Your task to perform on an android device: turn smart compose on in the gmail app Image 0: 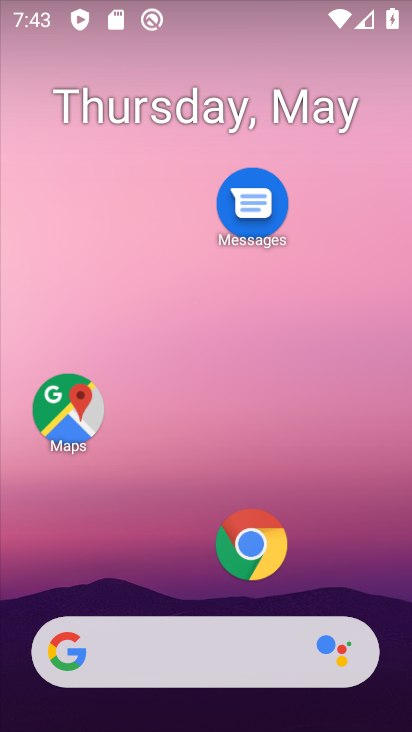
Step 0: drag from (160, 533) to (265, 151)
Your task to perform on an android device: turn smart compose on in the gmail app Image 1: 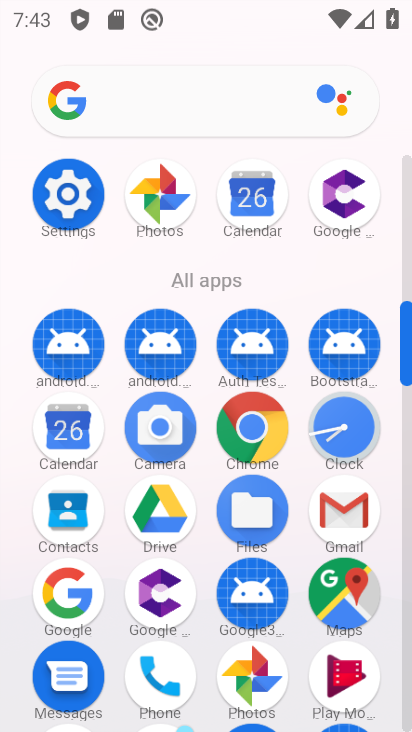
Step 1: click (349, 512)
Your task to perform on an android device: turn smart compose on in the gmail app Image 2: 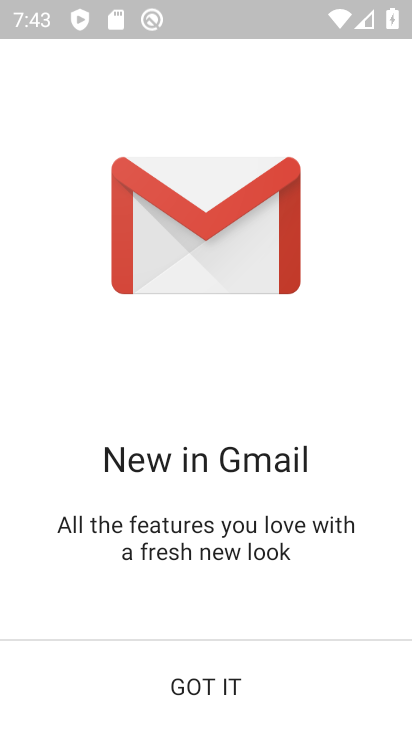
Step 2: click (224, 690)
Your task to perform on an android device: turn smart compose on in the gmail app Image 3: 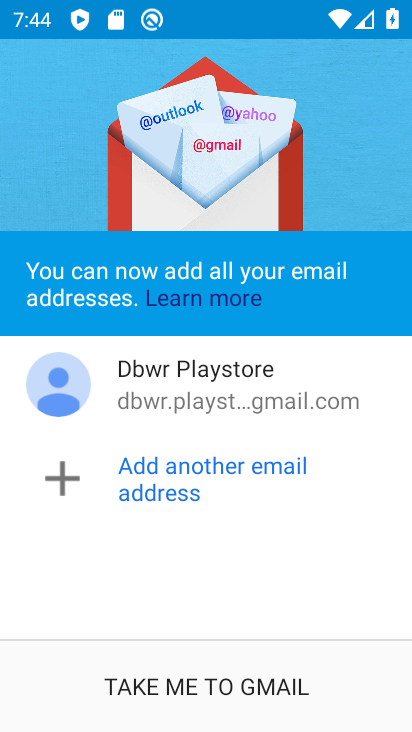
Step 3: click (223, 691)
Your task to perform on an android device: turn smart compose on in the gmail app Image 4: 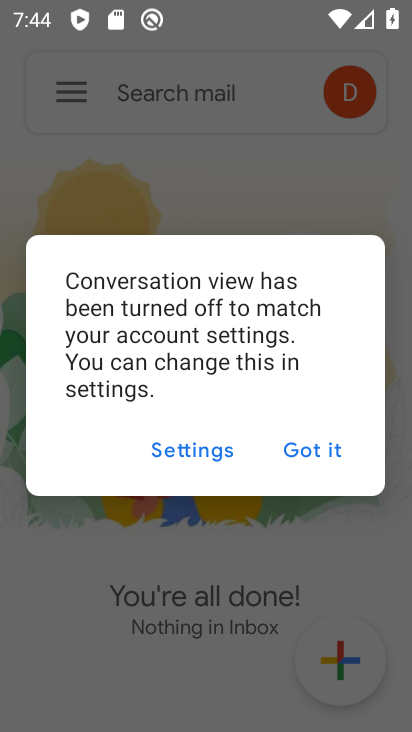
Step 4: click (309, 446)
Your task to perform on an android device: turn smart compose on in the gmail app Image 5: 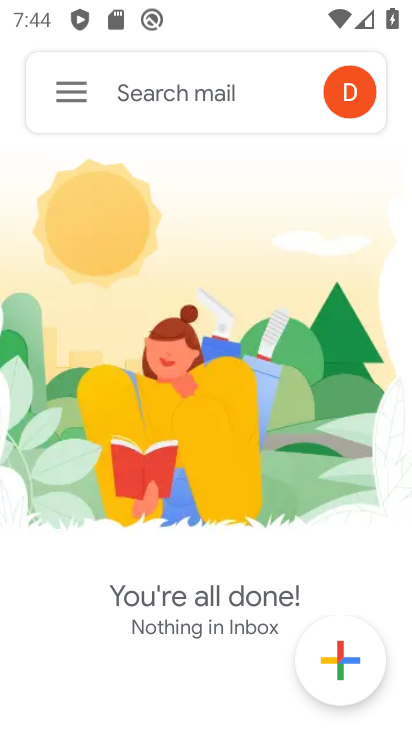
Step 5: click (66, 85)
Your task to perform on an android device: turn smart compose on in the gmail app Image 6: 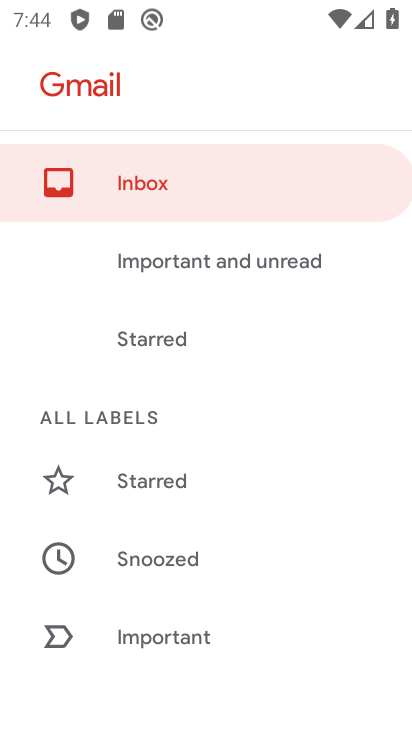
Step 6: drag from (162, 581) to (193, 247)
Your task to perform on an android device: turn smart compose on in the gmail app Image 7: 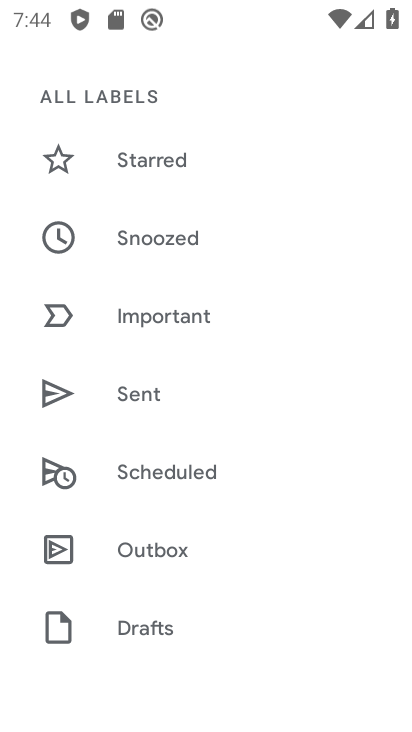
Step 7: drag from (153, 595) to (208, 345)
Your task to perform on an android device: turn smart compose on in the gmail app Image 8: 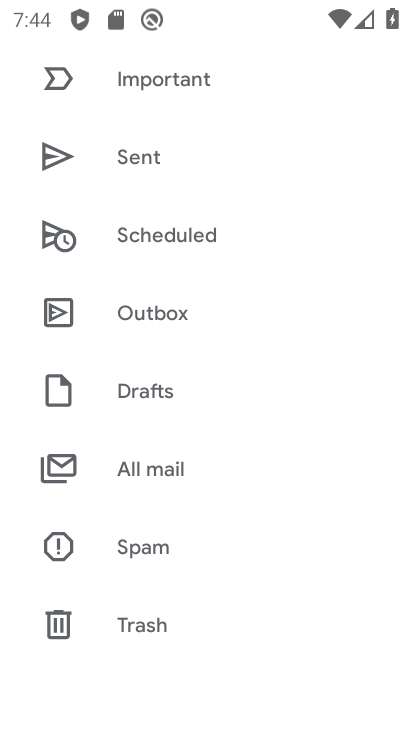
Step 8: drag from (138, 622) to (187, 217)
Your task to perform on an android device: turn smart compose on in the gmail app Image 9: 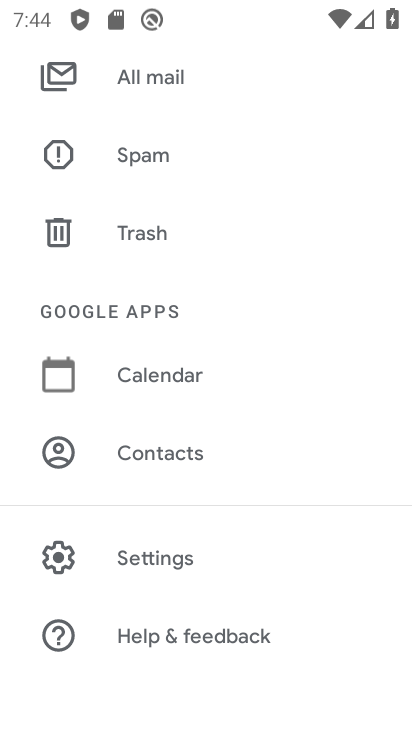
Step 9: drag from (208, 351) to (225, 167)
Your task to perform on an android device: turn smart compose on in the gmail app Image 10: 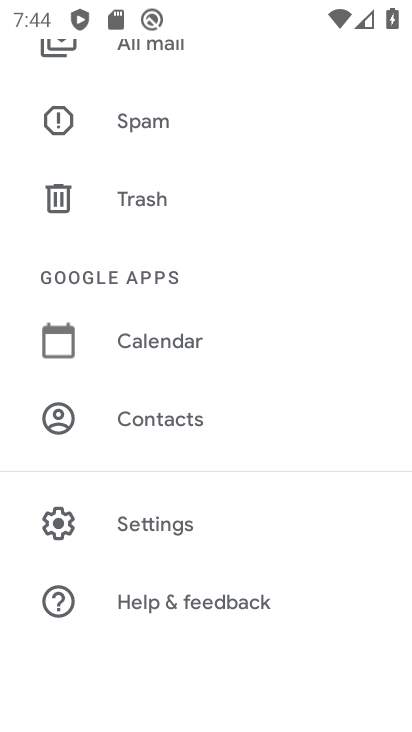
Step 10: click (153, 522)
Your task to perform on an android device: turn smart compose on in the gmail app Image 11: 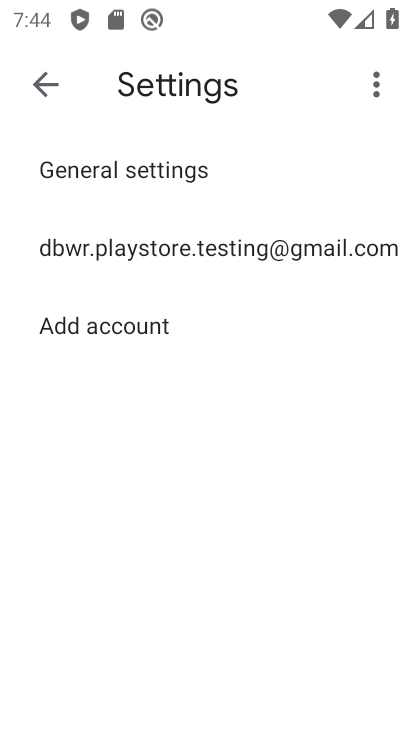
Step 11: click (207, 242)
Your task to perform on an android device: turn smart compose on in the gmail app Image 12: 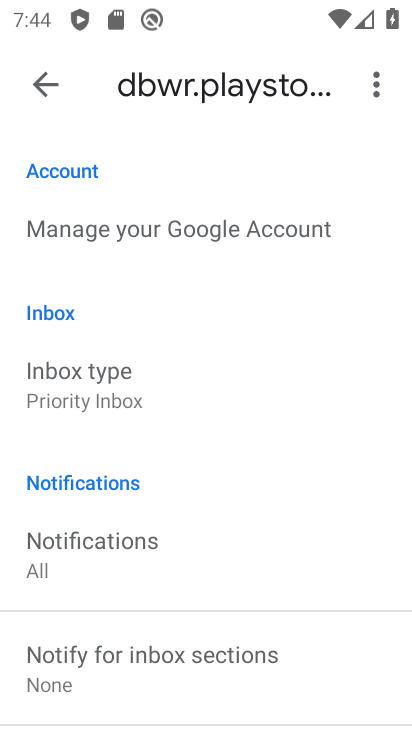
Step 12: task complete